Your task to perform on an android device: see tabs open on other devices in the chrome app Image 0: 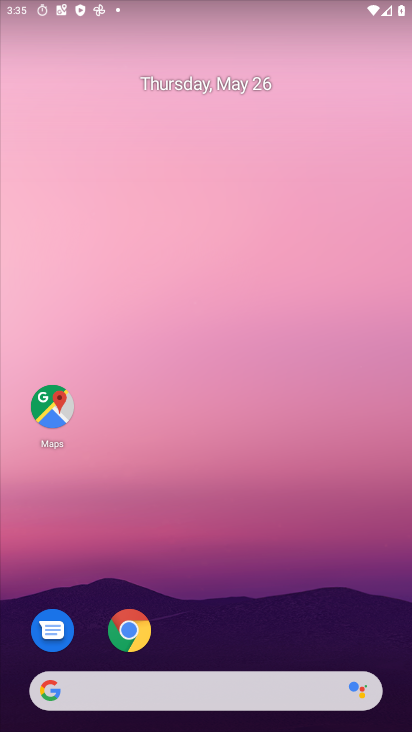
Step 0: click (142, 624)
Your task to perform on an android device: see tabs open on other devices in the chrome app Image 1: 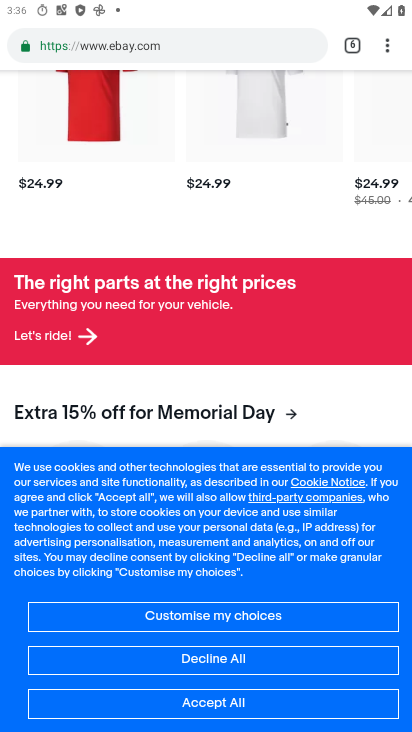
Step 1: press home button
Your task to perform on an android device: see tabs open on other devices in the chrome app Image 2: 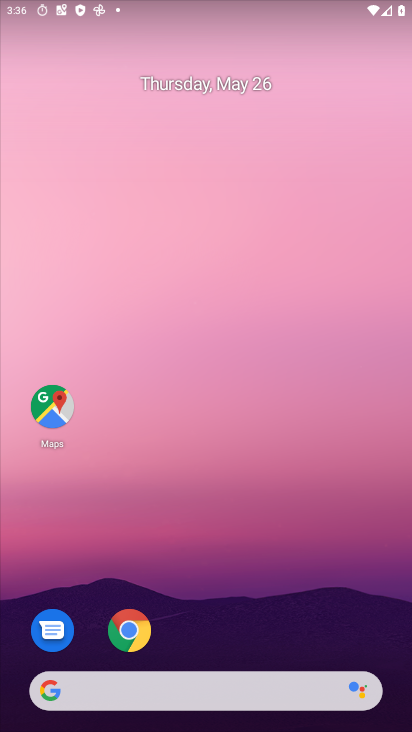
Step 2: drag from (243, 668) to (225, 143)
Your task to perform on an android device: see tabs open on other devices in the chrome app Image 3: 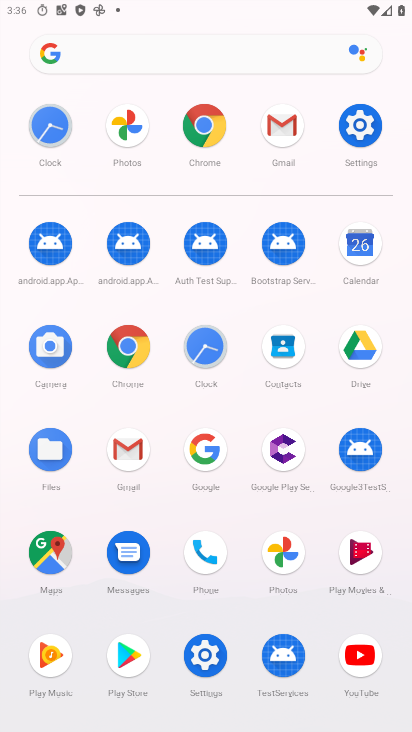
Step 3: click (197, 110)
Your task to perform on an android device: see tabs open on other devices in the chrome app Image 4: 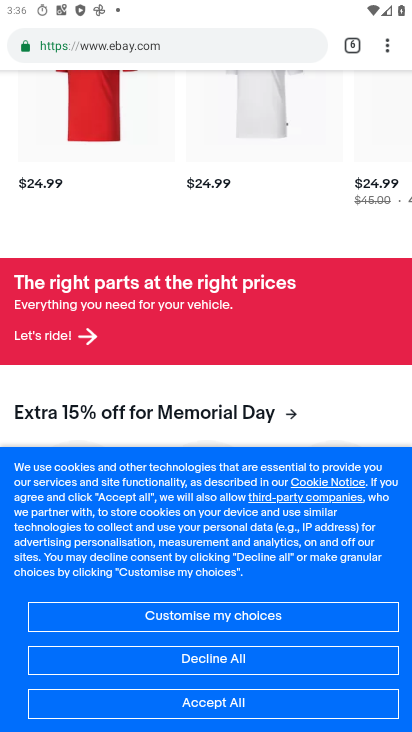
Step 4: click (389, 44)
Your task to perform on an android device: see tabs open on other devices in the chrome app Image 5: 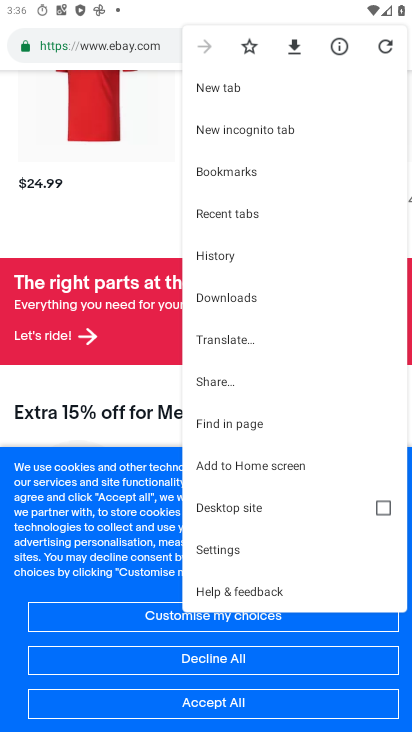
Step 5: click (254, 210)
Your task to perform on an android device: see tabs open on other devices in the chrome app Image 6: 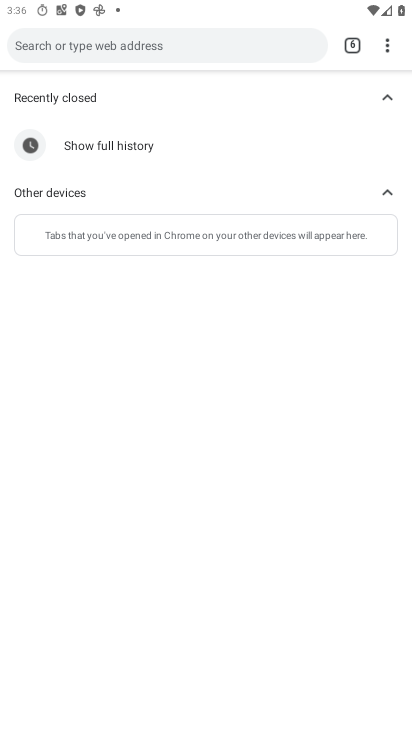
Step 6: click (164, 148)
Your task to perform on an android device: see tabs open on other devices in the chrome app Image 7: 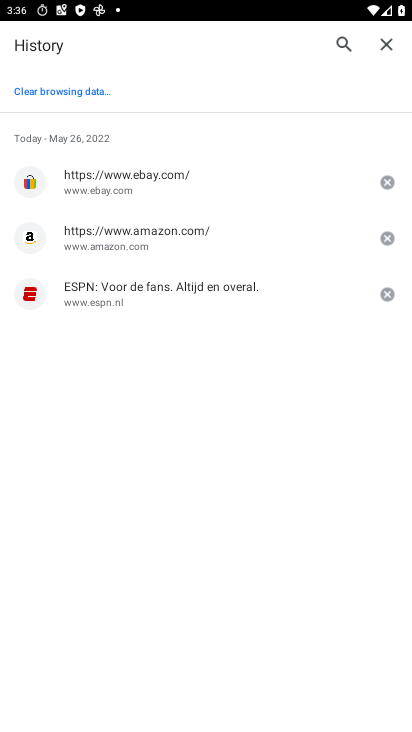
Step 7: task complete